Your task to perform on an android device: toggle improve location accuracy Image 0: 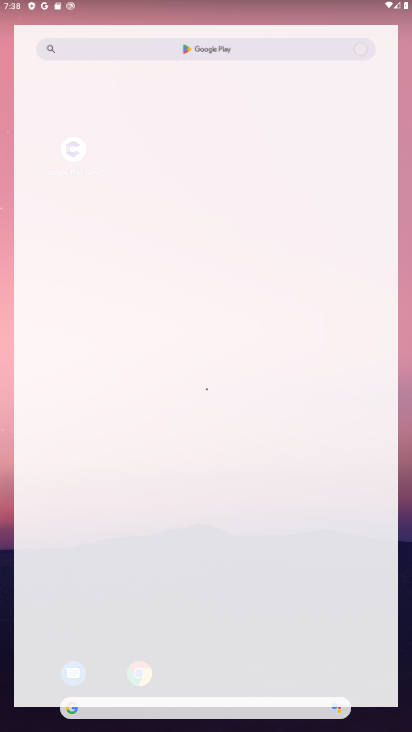
Step 0: click (137, 678)
Your task to perform on an android device: toggle improve location accuracy Image 1: 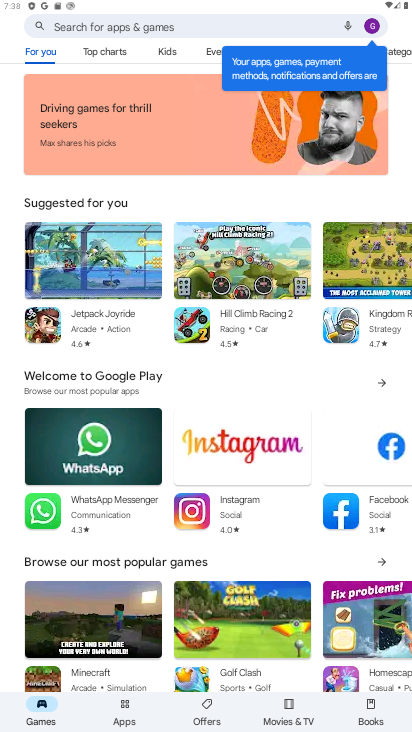
Step 1: press home button
Your task to perform on an android device: toggle improve location accuracy Image 2: 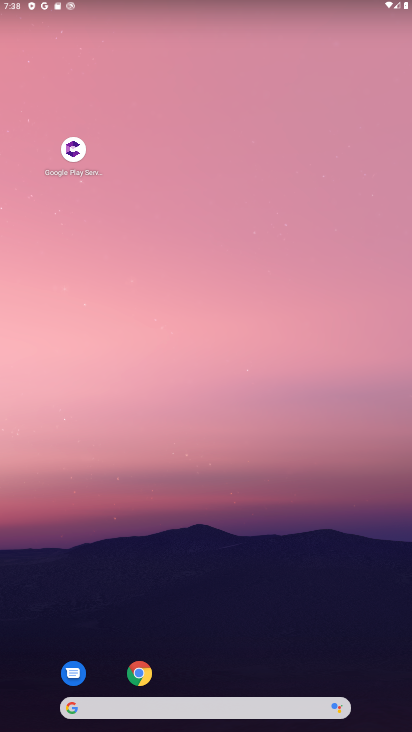
Step 2: drag from (16, 714) to (149, 32)
Your task to perform on an android device: toggle improve location accuracy Image 3: 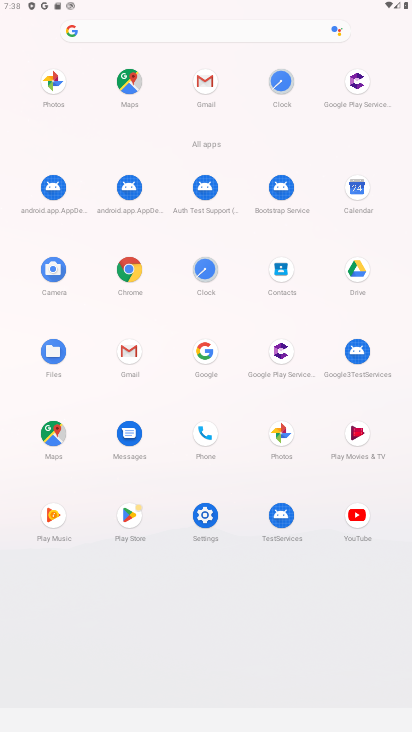
Step 3: click (203, 530)
Your task to perform on an android device: toggle improve location accuracy Image 4: 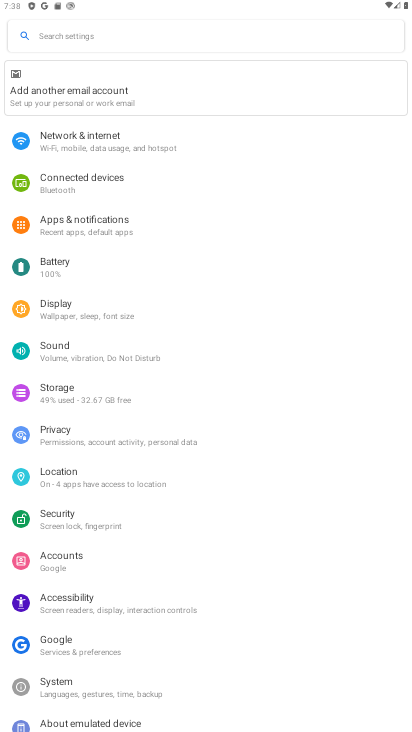
Step 4: click (69, 478)
Your task to perform on an android device: toggle improve location accuracy Image 5: 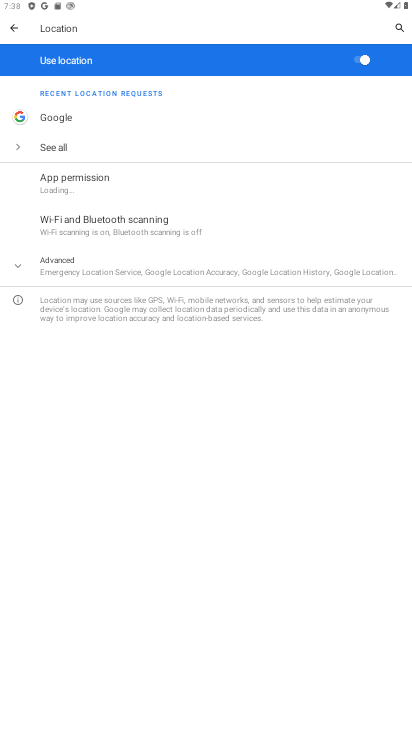
Step 5: click (111, 186)
Your task to perform on an android device: toggle improve location accuracy Image 6: 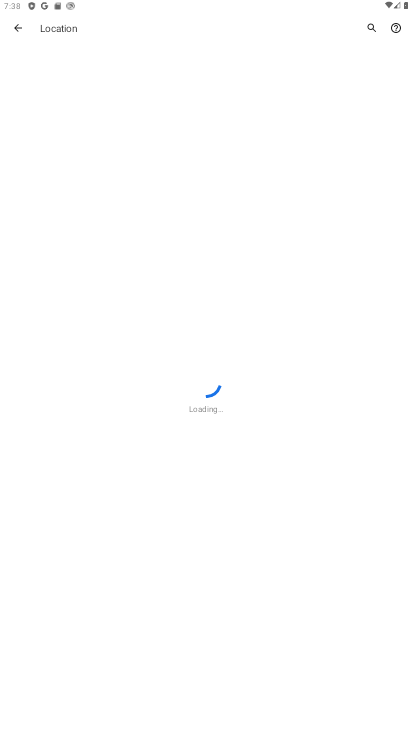
Step 6: click (9, 29)
Your task to perform on an android device: toggle improve location accuracy Image 7: 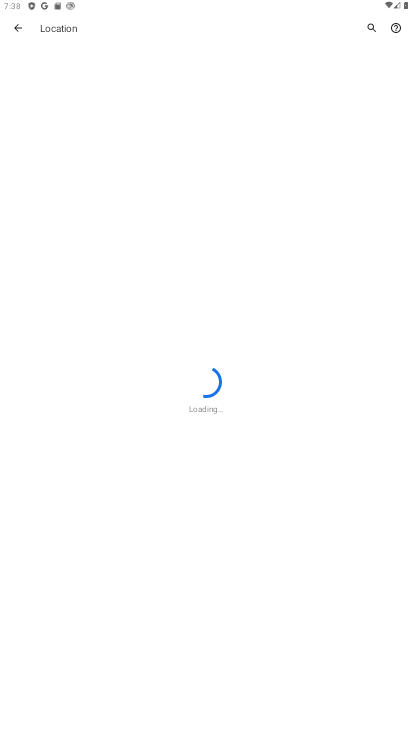
Step 7: click (17, 30)
Your task to perform on an android device: toggle improve location accuracy Image 8: 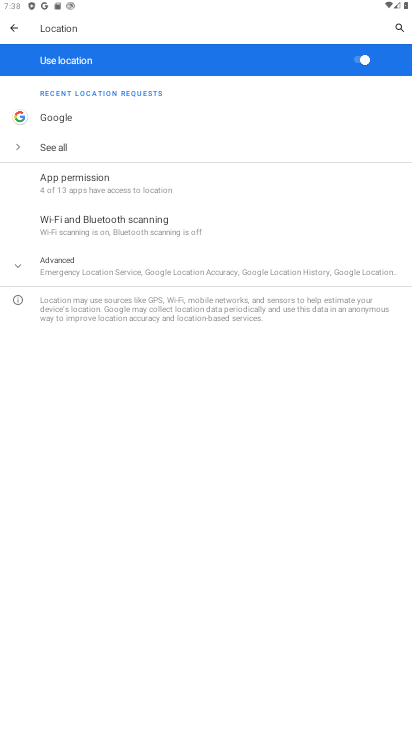
Step 8: click (71, 266)
Your task to perform on an android device: toggle improve location accuracy Image 9: 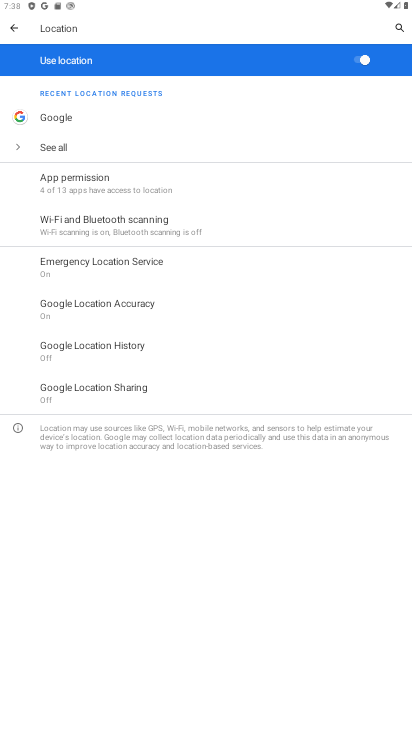
Step 9: click (133, 307)
Your task to perform on an android device: toggle improve location accuracy Image 10: 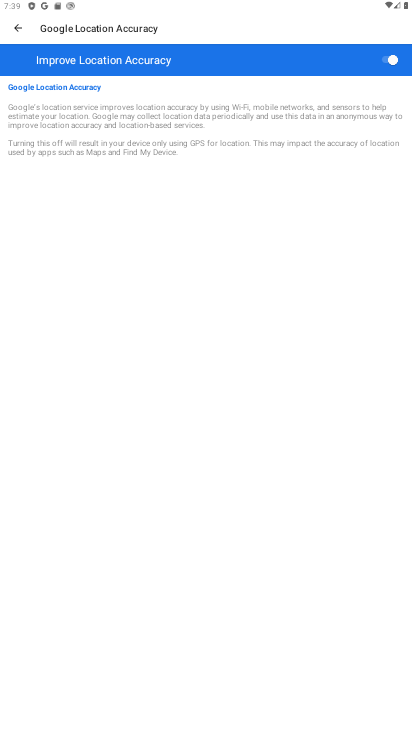
Step 10: task complete